Your task to perform on an android device: turn on wifi Image 0: 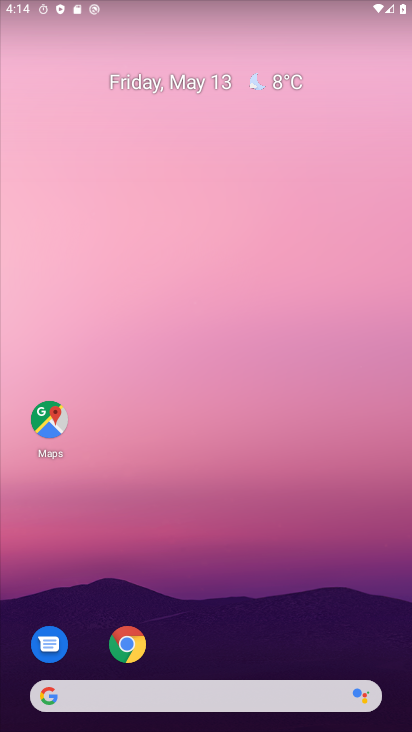
Step 0: drag from (231, 661) to (221, 193)
Your task to perform on an android device: turn on wifi Image 1: 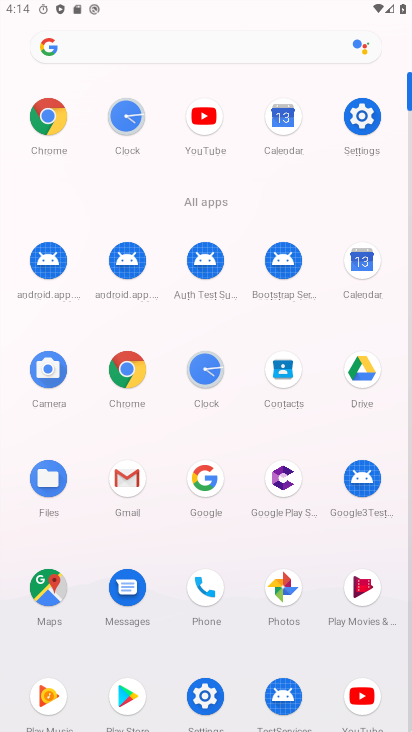
Step 1: click (344, 101)
Your task to perform on an android device: turn on wifi Image 2: 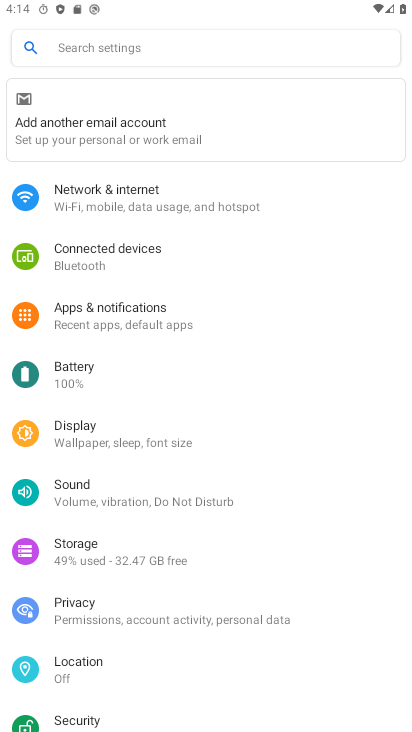
Step 2: click (188, 213)
Your task to perform on an android device: turn on wifi Image 3: 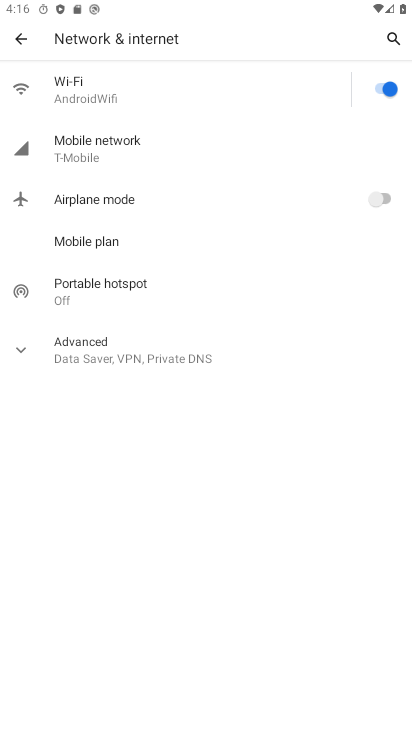
Step 3: task complete